Your task to perform on an android device: Go to Google maps Image 0: 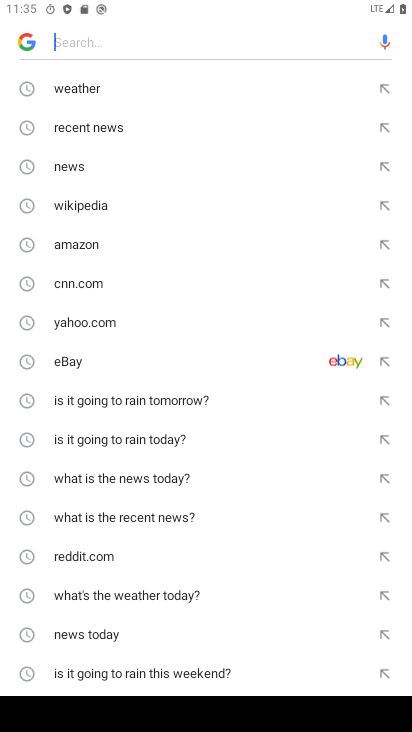
Step 0: press home button
Your task to perform on an android device: Go to Google maps Image 1: 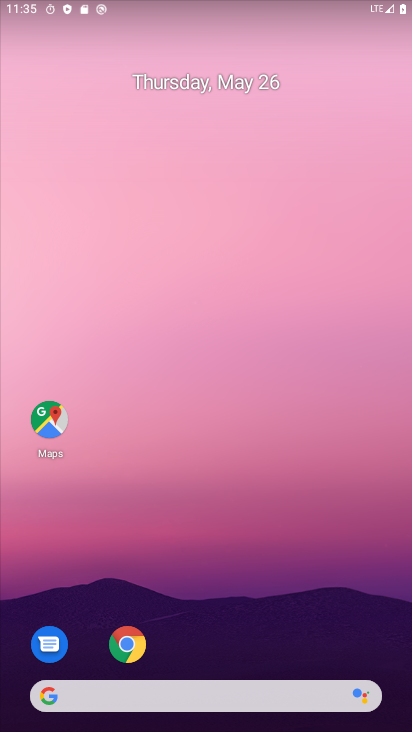
Step 1: click (50, 418)
Your task to perform on an android device: Go to Google maps Image 2: 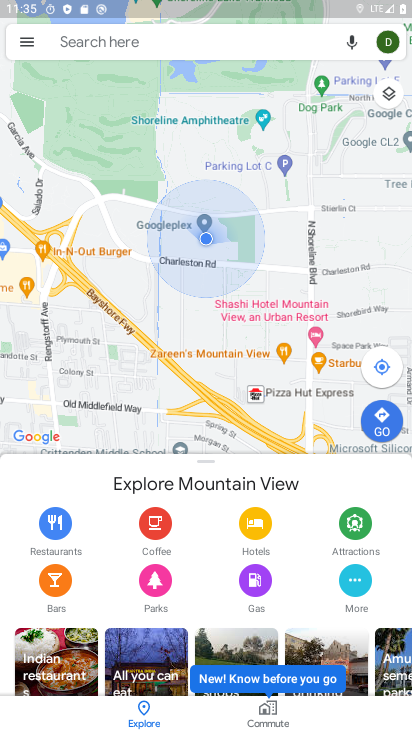
Step 2: task complete